Your task to perform on an android device: Go to Maps Image 0: 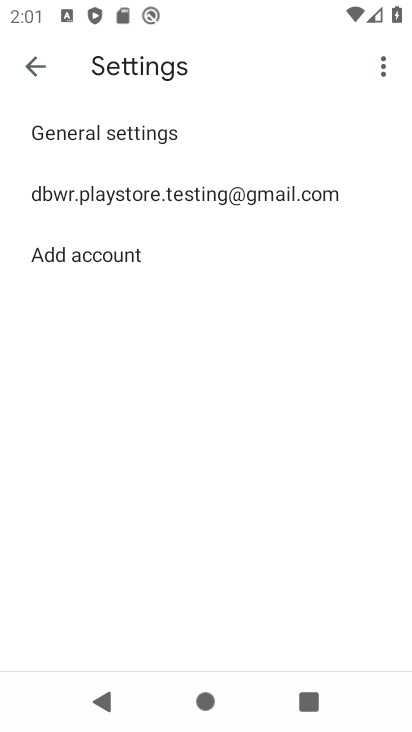
Step 0: press home button
Your task to perform on an android device: Go to Maps Image 1: 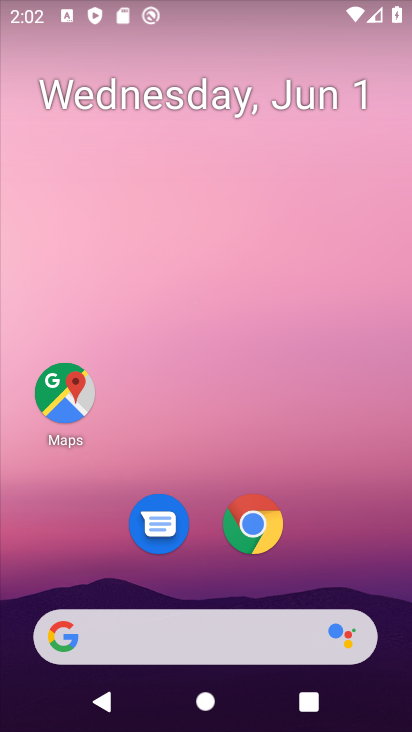
Step 1: click (68, 395)
Your task to perform on an android device: Go to Maps Image 2: 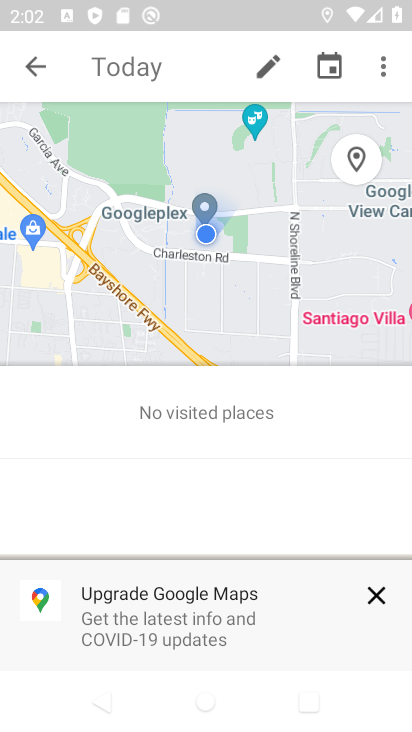
Step 2: click (24, 52)
Your task to perform on an android device: Go to Maps Image 3: 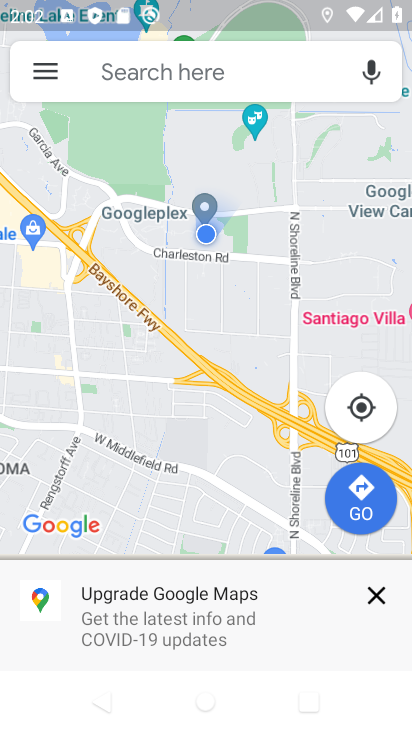
Step 3: task complete